Your task to perform on an android device: open a bookmark in the chrome app Image 0: 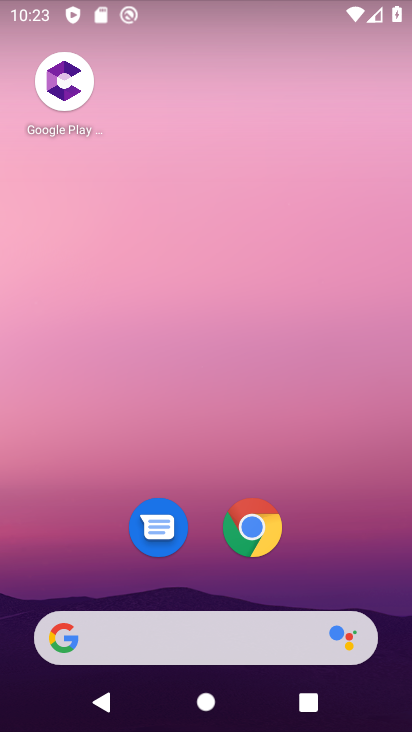
Step 0: drag from (366, 510) to (341, 122)
Your task to perform on an android device: open a bookmark in the chrome app Image 1: 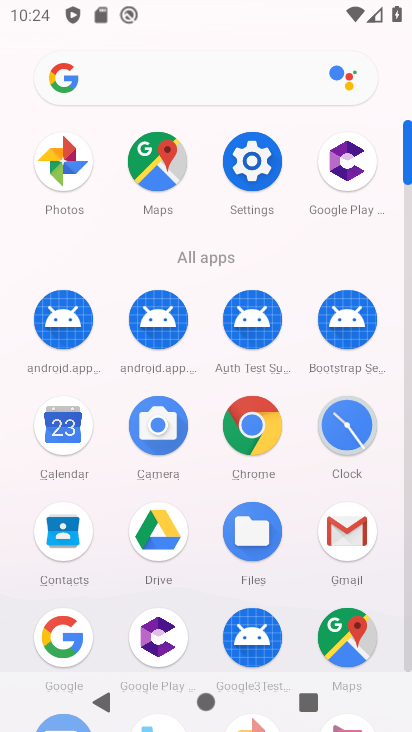
Step 1: click (263, 442)
Your task to perform on an android device: open a bookmark in the chrome app Image 2: 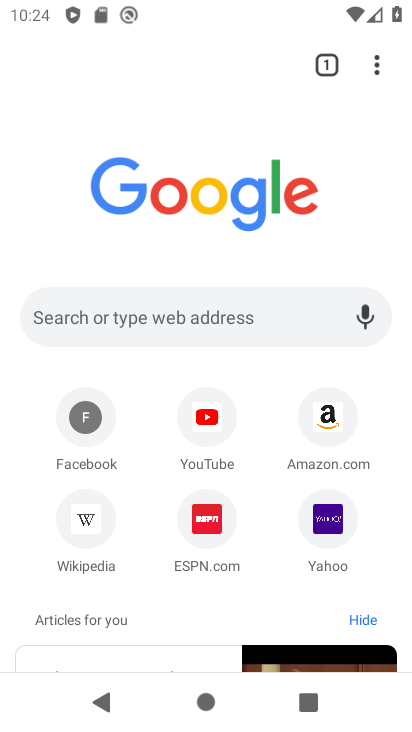
Step 2: task complete